Your task to perform on an android device: Check the settings for the Spotify app Image 0: 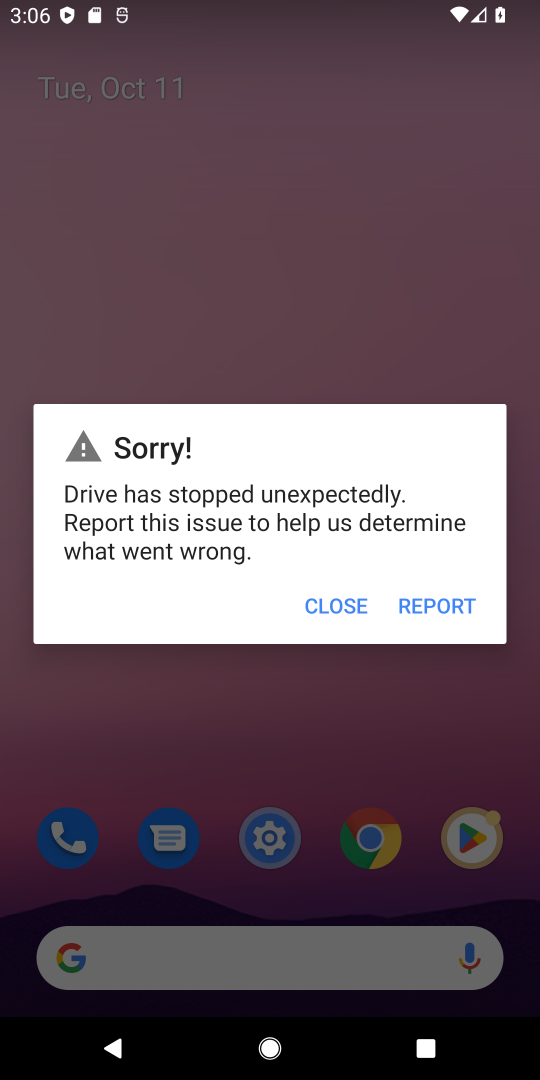
Step 0: click (343, 605)
Your task to perform on an android device: Check the settings for the Spotify app Image 1: 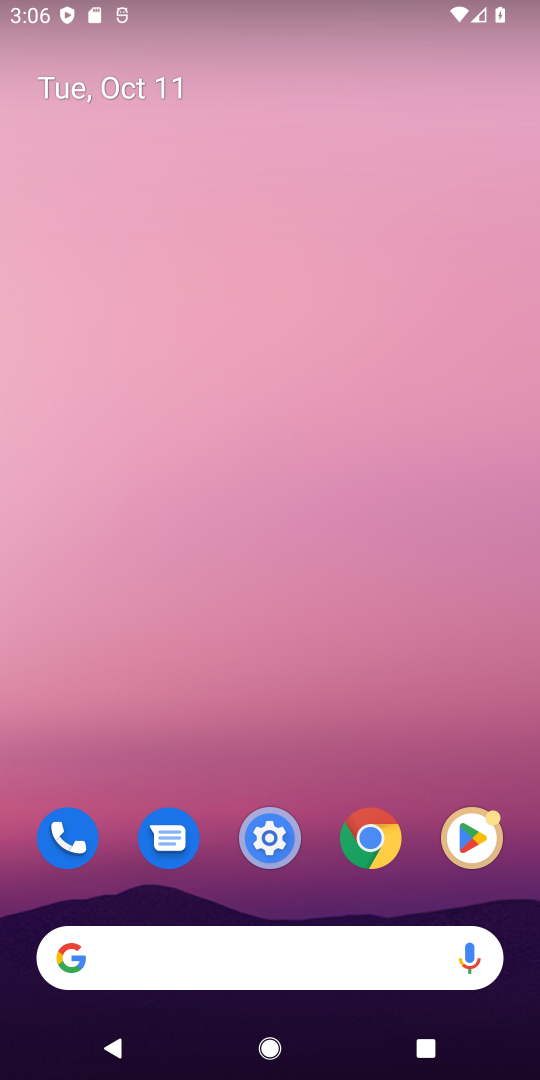
Step 1: task complete